Your task to perform on an android device: set the timer Image 0: 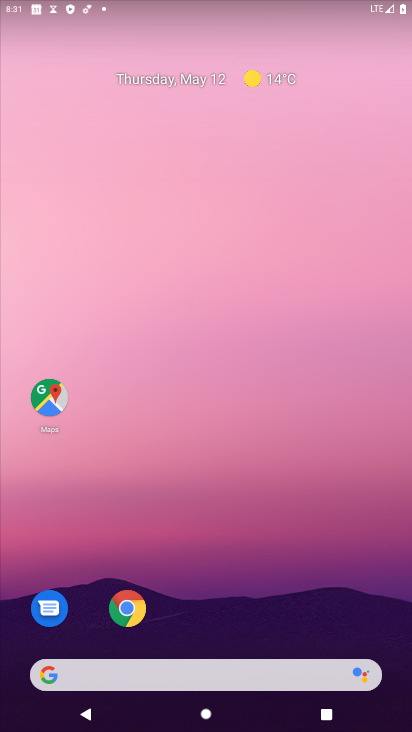
Step 0: drag from (190, 659) to (277, 197)
Your task to perform on an android device: set the timer Image 1: 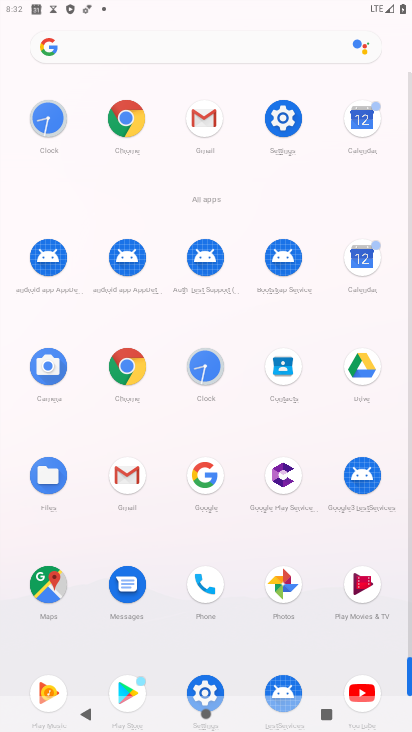
Step 1: click (202, 366)
Your task to perform on an android device: set the timer Image 2: 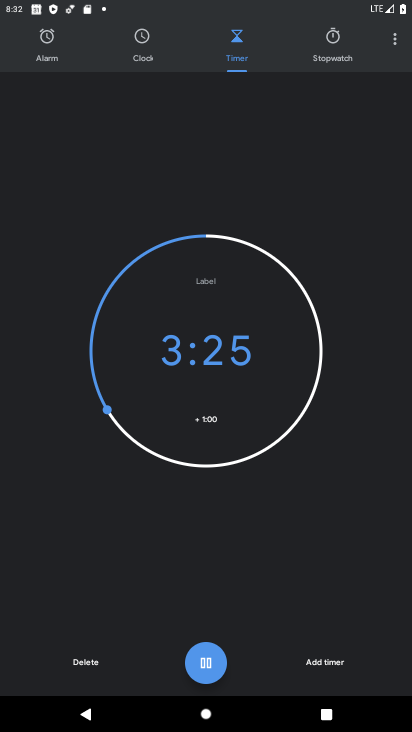
Step 2: click (203, 668)
Your task to perform on an android device: set the timer Image 3: 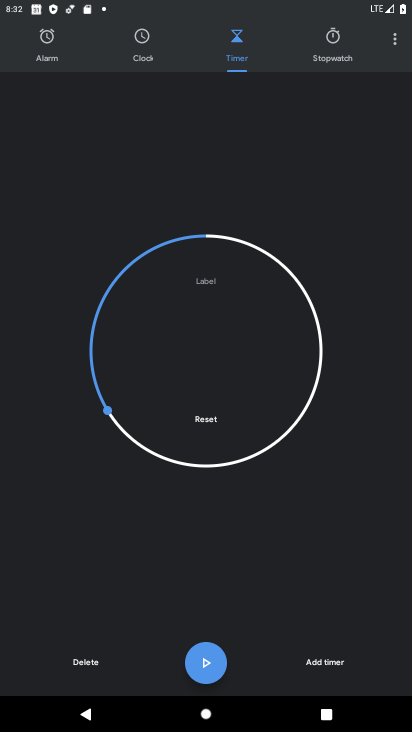
Step 3: click (239, 51)
Your task to perform on an android device: set the timer Image 4: 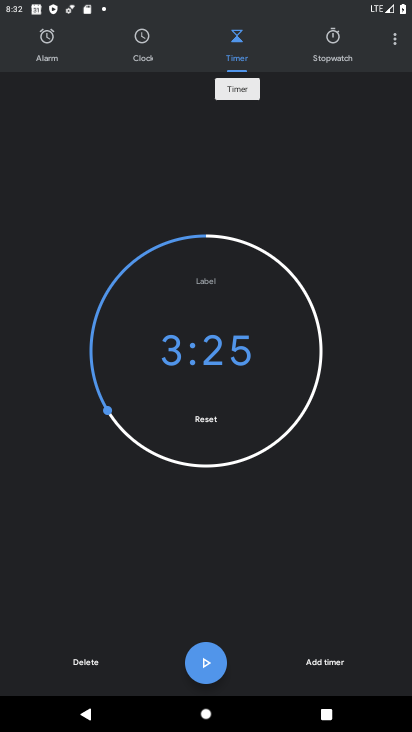
Step 4: click (243, 49)
Your task to perform on an android device: set the timer Image 5: 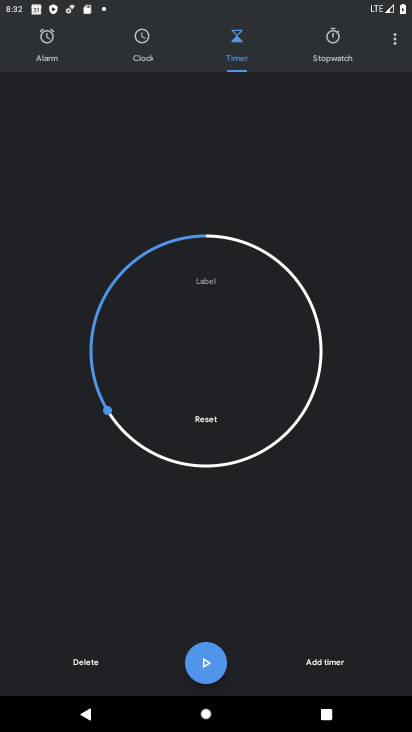
Step 5: click (323, 669)
Your task to perform on an android device: set the timer Image 6: 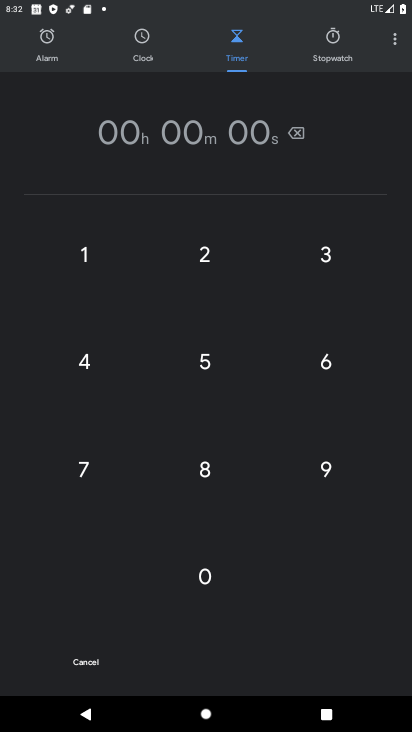
Step 6: click (204, 577)
Your task to perform on an android device: set the timer Image 7: 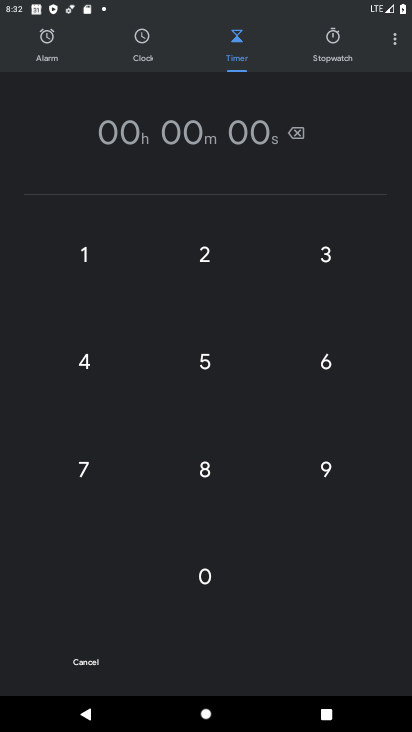
Step 7: click (93, 462)
Your task to perform on an android device: set the timer Image 8: 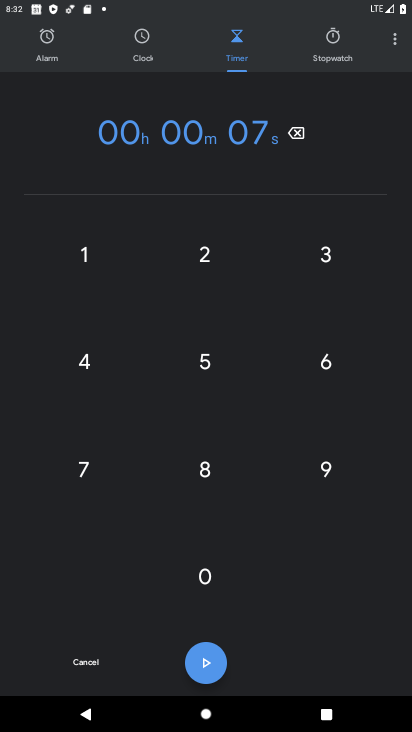
Step 8: click (197, 577)
Your task to perform on an android device: set the timer Image 9: 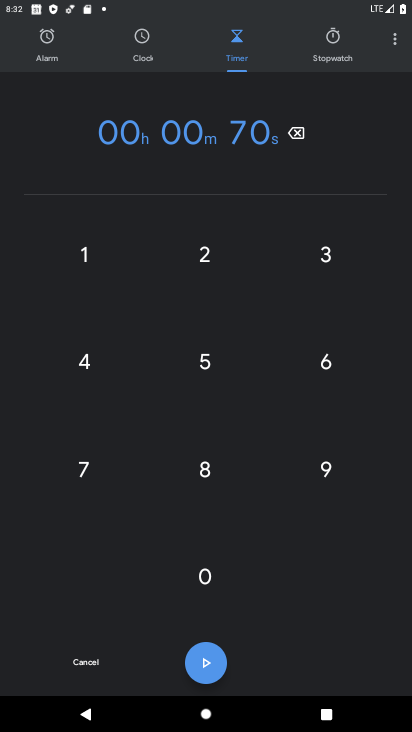
Step 9: click (212, 476)
Your task to perform on an android device: set the timer Image 10: 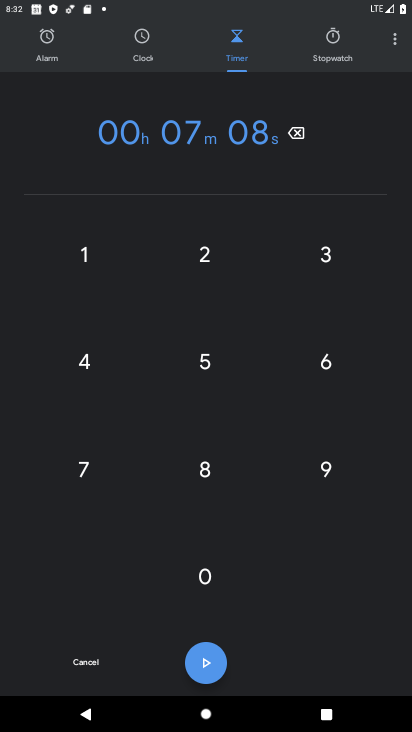
Step 10: click (206, 669)
Your task to perform on an android device: set the timer Image 11: 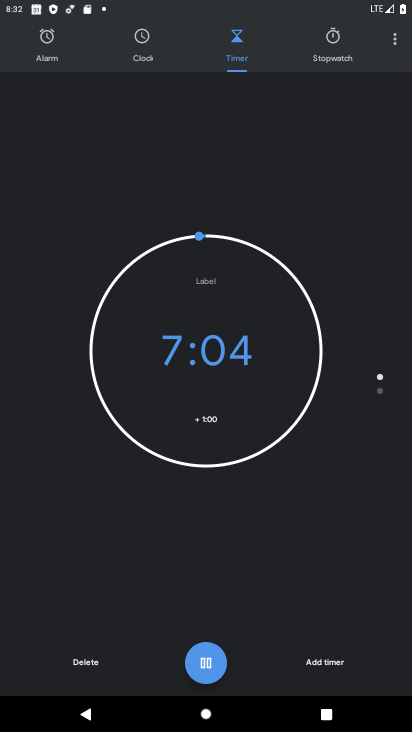
Step 11: task complete